Your task to perform on an android device: Go to Maps Image 0: 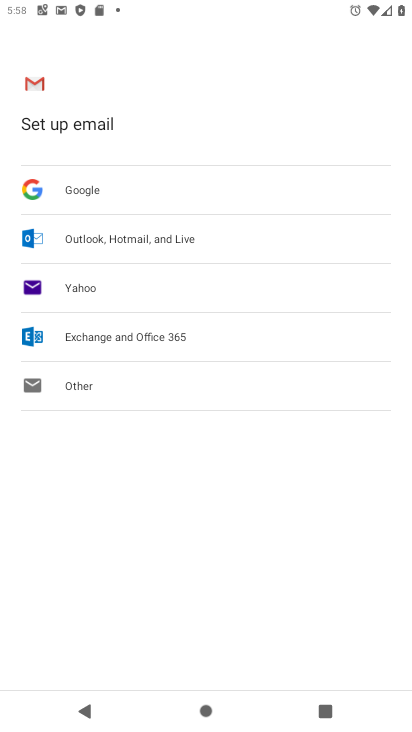
Step 0: press home button
Your task to perform on an android device: Go to Maps Image 1: 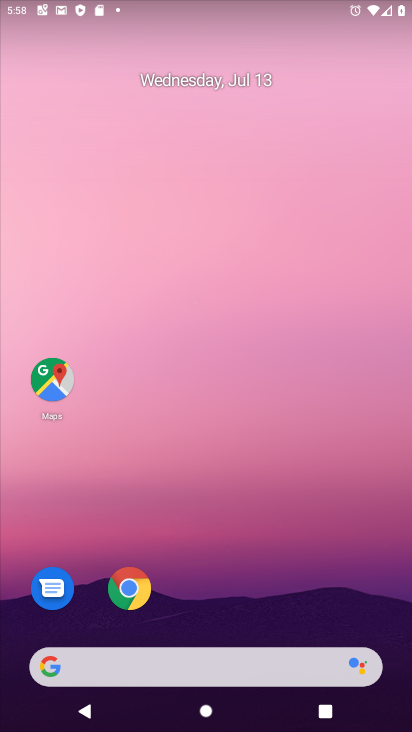
Step 1: click (42, 381)
Your task to perform on an android device: Go to Maps Image 2: 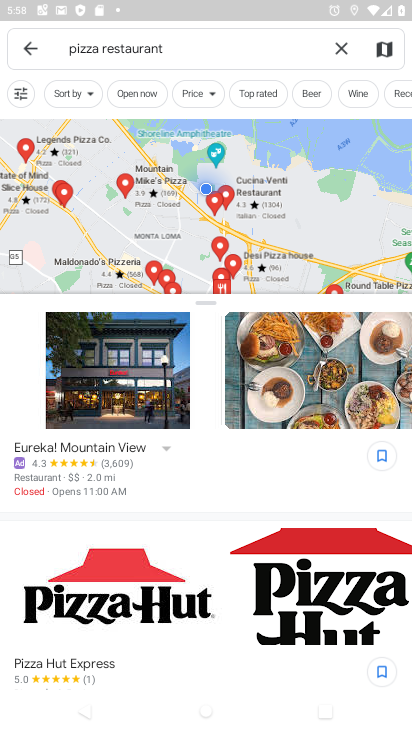
Step 2: task complete